Your task to perform on an android device: search for starred emails in the gmail app Image 0: 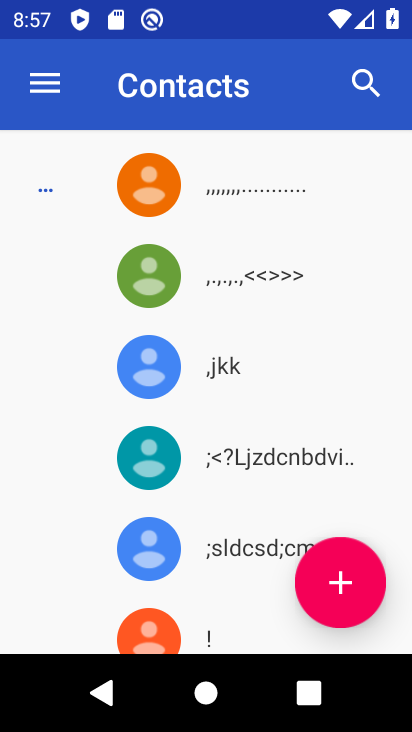
Step 0: press home button
Your task to perform on an android device: search for starred emails in the gmail app Image 1: 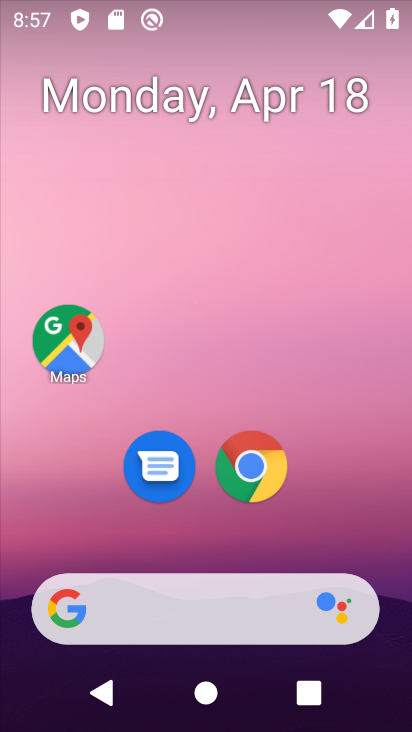
Step 1: drag from (208, 539) to (224, 67)
Your task to perform on an android device: search for starred emails in the gmail app Image 2: 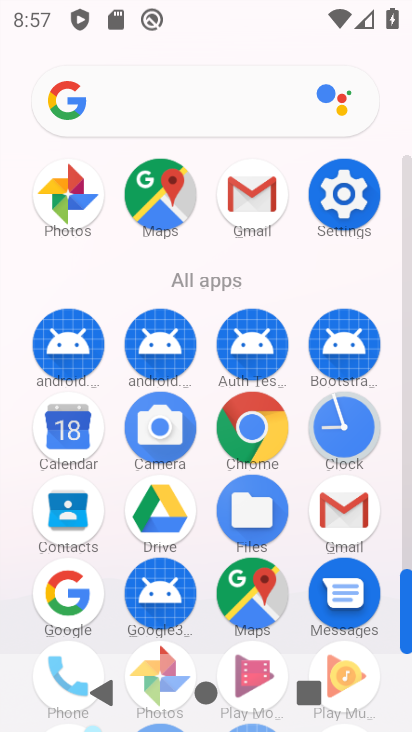
Step 2: click (338, 510)
Your task to perform on an android device: search for starred emails in the gmail app Image 3: 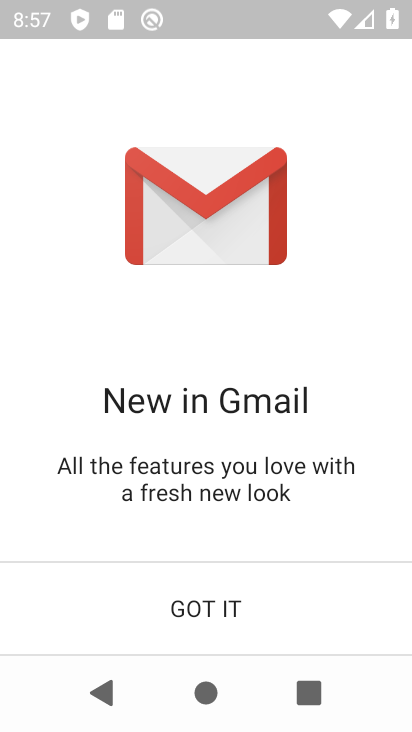
Step 3: click (180, 620)
Your task to perform on an android device: search for starred emails in the gmail app Image 4: 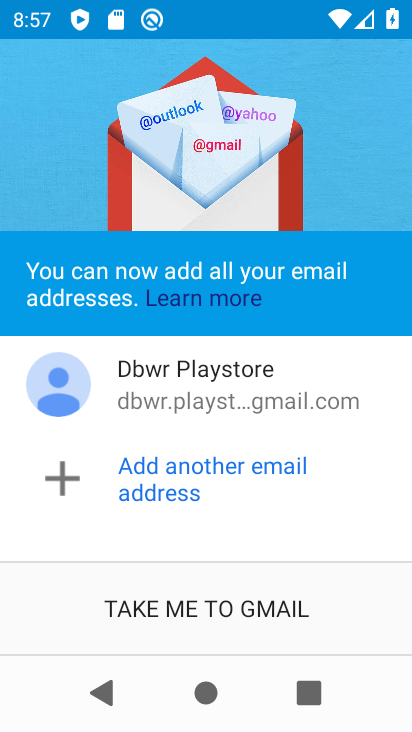
Step 4: click (180, 620)
Your task to perform on an android device: search for starred emails in the gmail app Image 5: 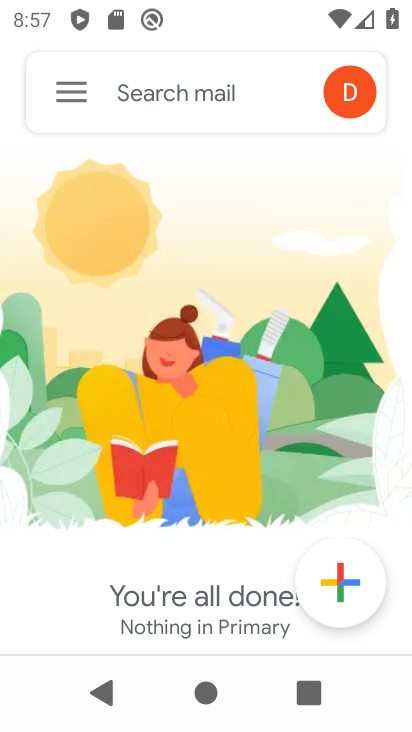
Step 5: click (163, 100)
Your task to perform on an android device: search for starred emails in the gmail app Image 6: 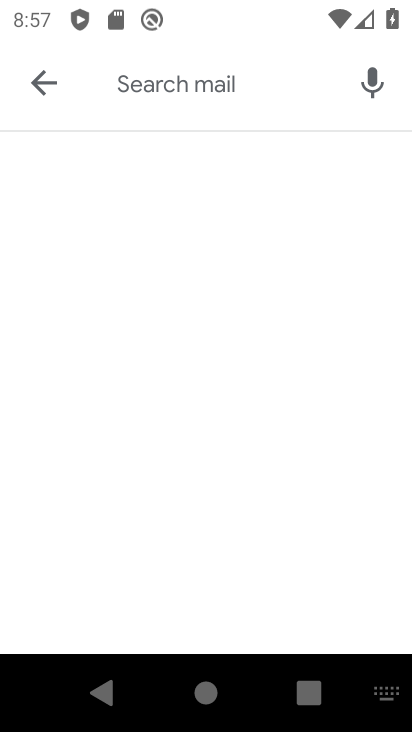
Step 6: type "starred"
Your task to perform on an android device: search for starred emails in the gmail app Image 7: 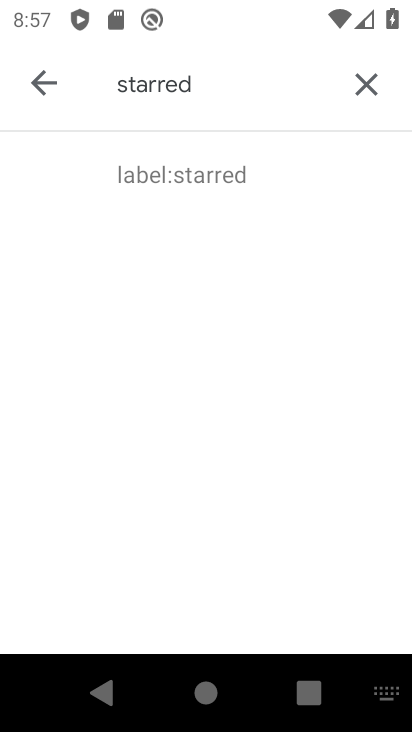
Step 7: click (262, 178)
Your task to perform on an android device: search for starred emails in the gmail app Image 8: 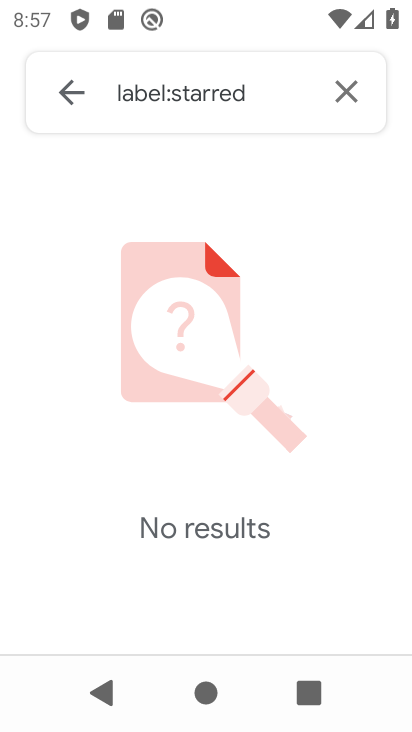
Step 8: task complete